Your task to perform on an android device: See recent photos Image 0: 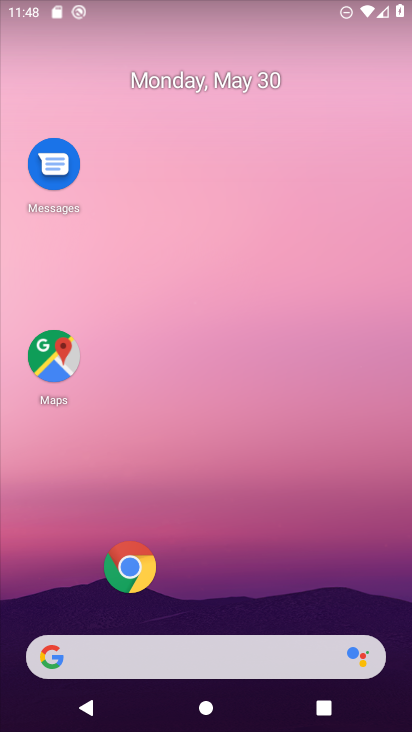
Step 0: drag from (236, 501) to (169, 8)
Your task to perform on an android device: See recent photos Image 1: 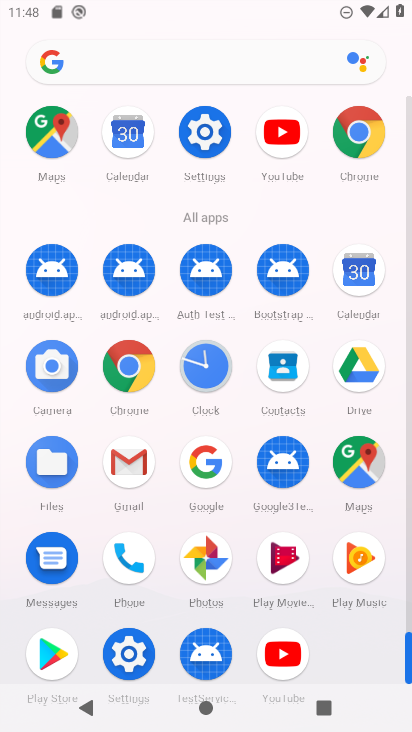
Step 1: click (204, 564)
Your task to perform on an android device: See recent photos Image 2: 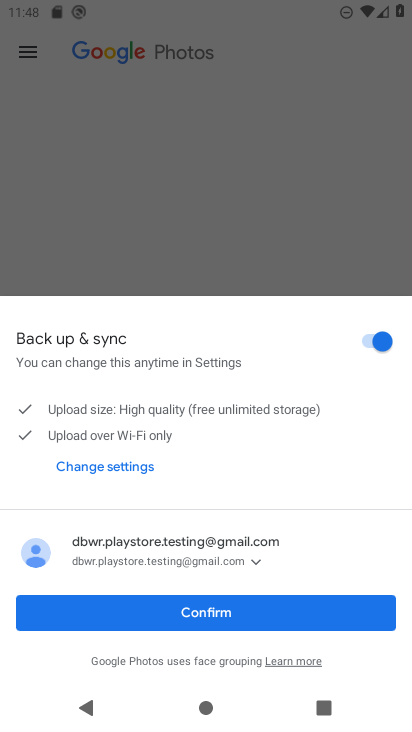
Step 2: click (171, 613)
Your task to perform on an android device: See recent photos Image 3: 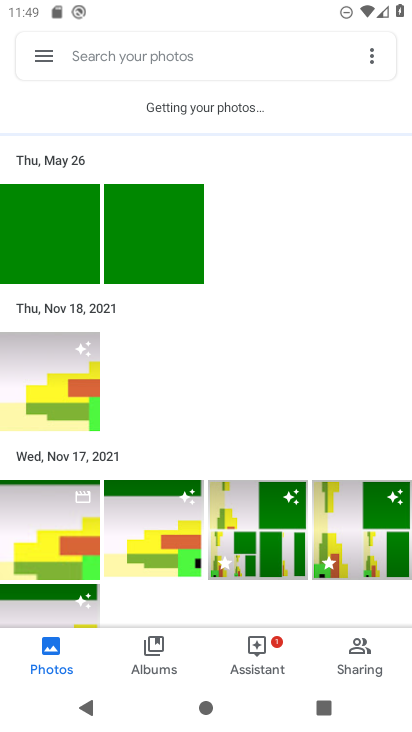
Step 3: task complete